Your task to perform on an android device: Go to sound settings Image 0: 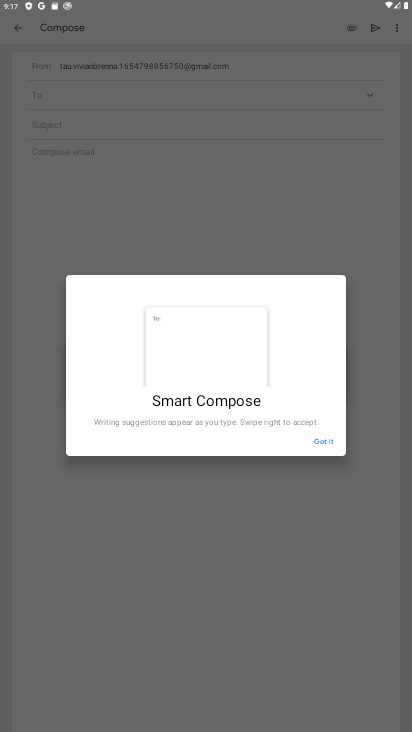
Step 0: press home button
Your task to perform on an android device: Go to sound settings Image 1: 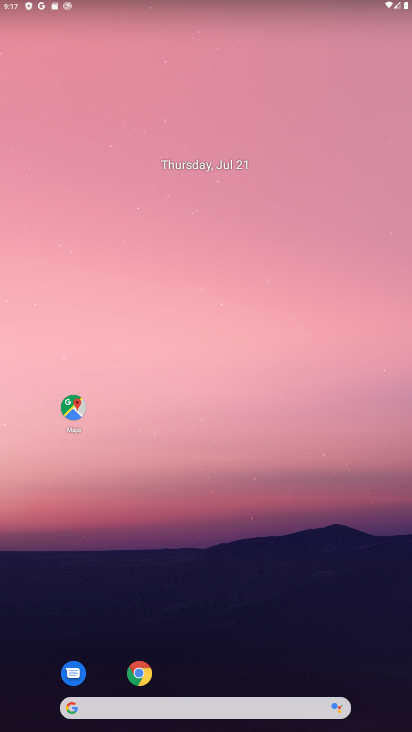
Step 1: drag from (214, 672) to (196, 126)
Your task to perform on an android device: Go to sound settings Image 2: 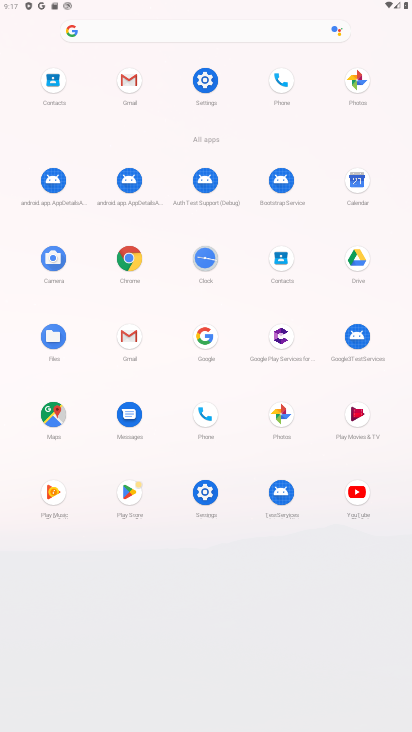
Step 2: click (209, 71)
Your task to perform on an android device: Go to sound settings Image 3: 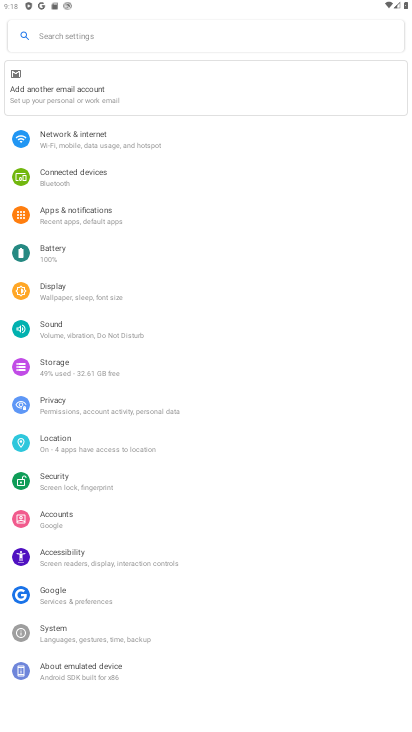
Step 3: click (79, 322)
Your task to perform on an android device: Go to sound settings Image 4: 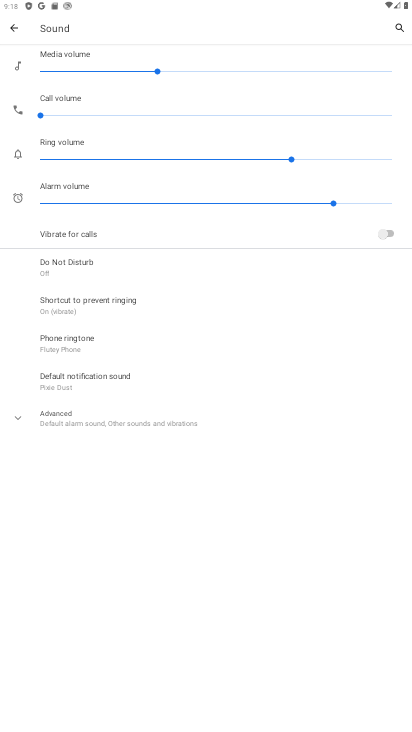
Step 4: click (20, 413)
Your task to perform on an android device: Go to sound settings Image 5: 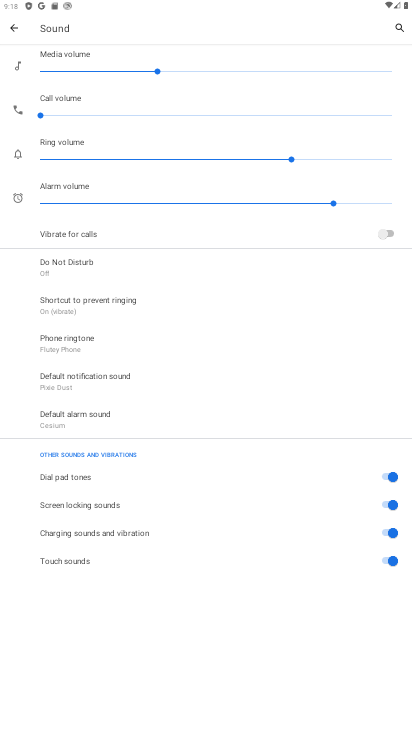
Step 5: task complete